Your task to perform on an android device: toggle improve location accuracy Image 0: 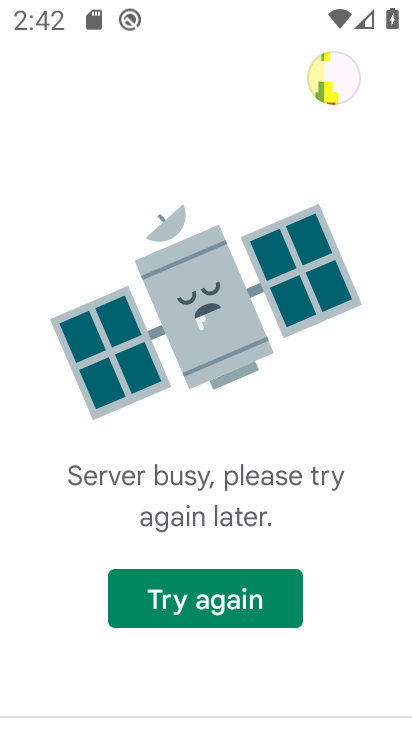
Step 0: press home button
Your task to perform on an android device: toggle improve location accuracy Image 1: 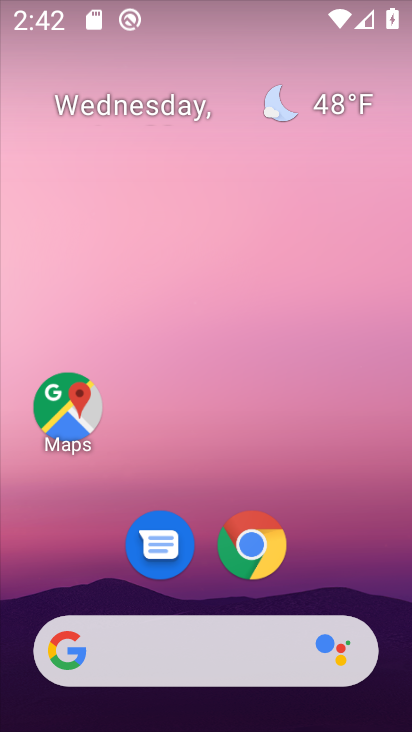
Step 1: drag from (228, 471) to (250, 158)
Your task to perform on an android device: toggle improve location accuracy Image 2: 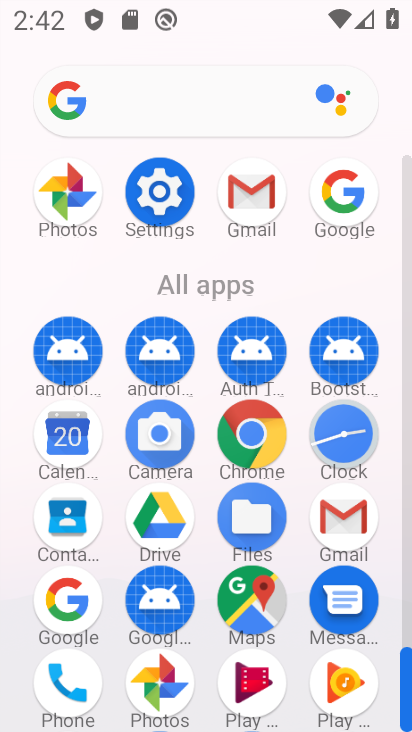
Step 2: click (150, 192)
Your task to perform on an android device: toggle improve location accuracy Image 3: 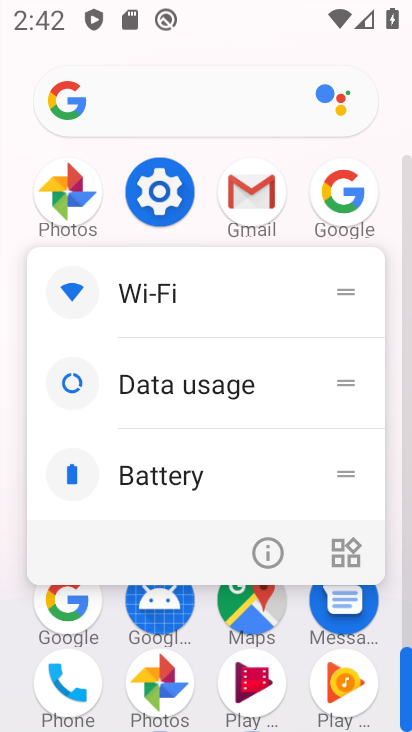
Step 3: click (174, 194)
Your task to perform on an android device: toggle improve location accuracy Image 4: 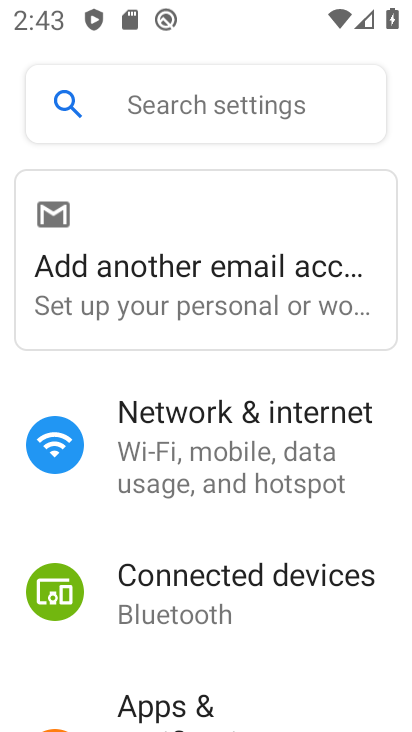
Step 4: drag from (263, 606) to (236, 38)
Your task to perform on an android device: toggle improve location accuracy Image 5: 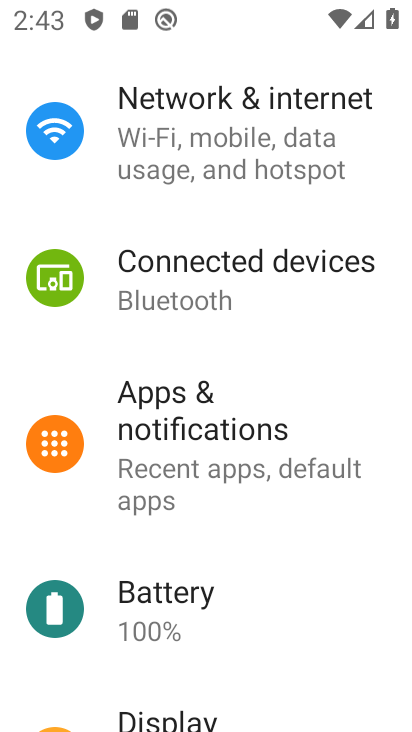
Step 5: drag from (264, 542) to (241, 65)
Your task to perform on an android device: toggle improve location accuracy Image 6: 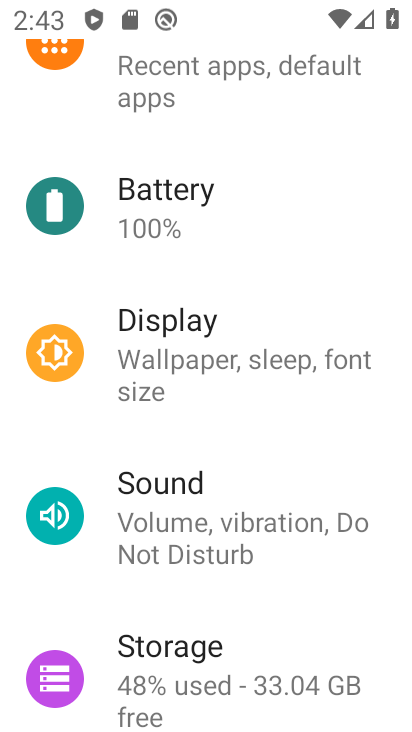
Step 6: drag from (298, 576) to (266, 185)
Your task to perform on an android device: toggle improve location accuracy Image 7: 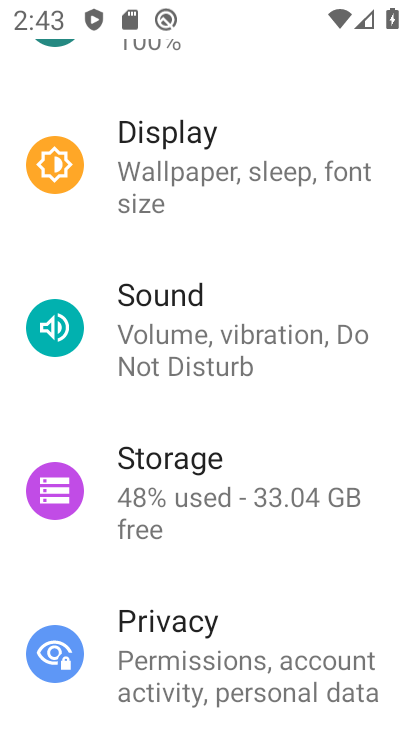
Step 7: drag from (256, 640) to (245, 185)
Your task to perform on an android device: toggle improve location accuracy Image 8: 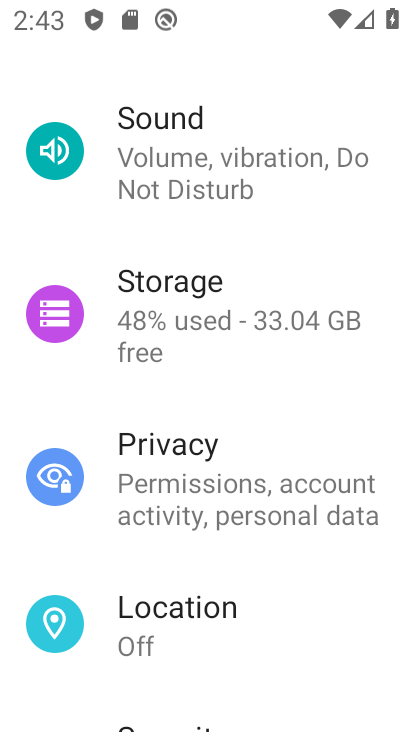
Step 8: drag from (254, 608) to (274, 190)
Your task to perform on an android device: toggle improve location accuracy Image 9: 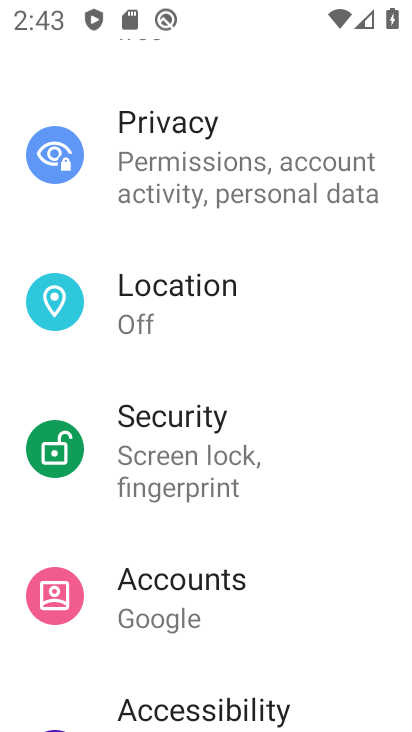
Step 9: drag from (350, 584) to (309, 241)
Your task to perform on an android device: toggle improve location accuracy Image 10: 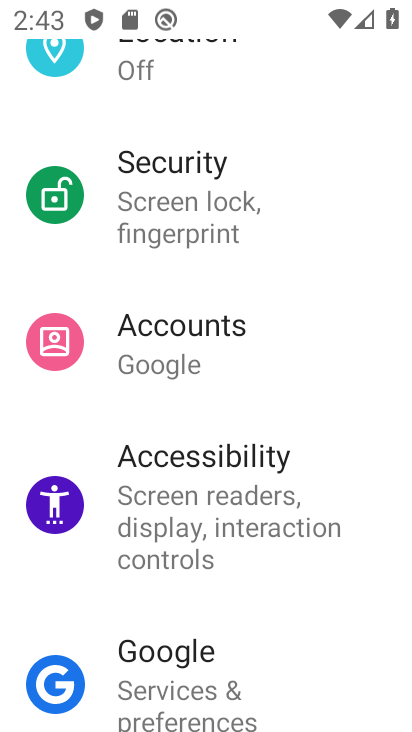
Step 10: drag from (327, 314) to (296, 729)
Your task to perform on an android device: toggle improve location accuracy Image 11: 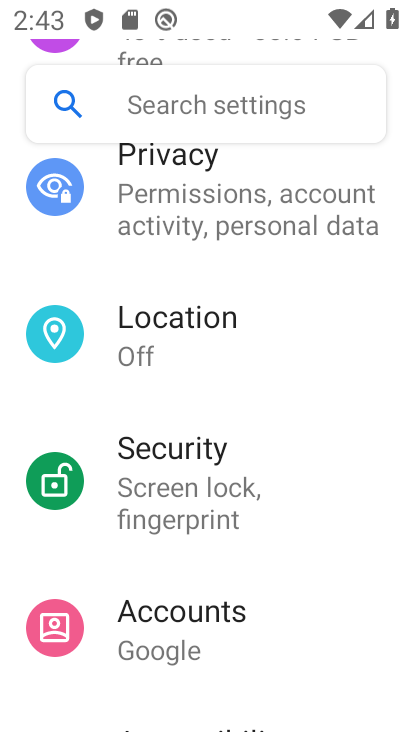
Step 11: drag from (274, 183) to (350, 722)
Your task to perform on an android device: toggle improve location accuracy Image 12: 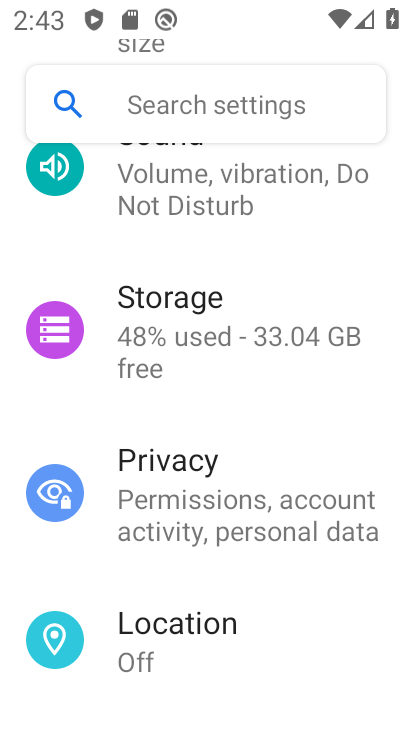
Step 12: drag from (319, 366) to (337, 700)
Your task to perform on an android device: toggle improve location accuracy Image 13: 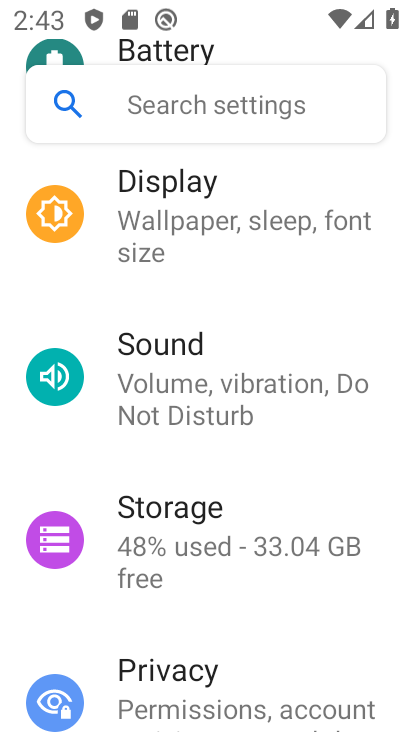
Step 13: drag from (308, 362) to (309, 723)
Your task to perform on an android device: toggle improve location accuracy Image 14: 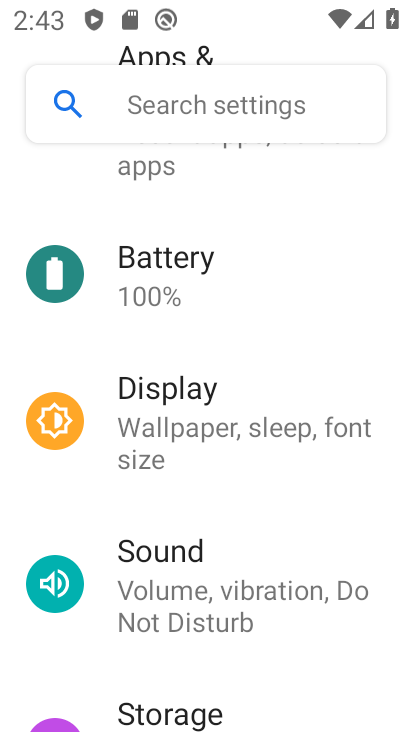
Step 14: drag from (272, 190) to (304, 730)
Your task to perform on an android device: toggle improve location accuracy Image 15: 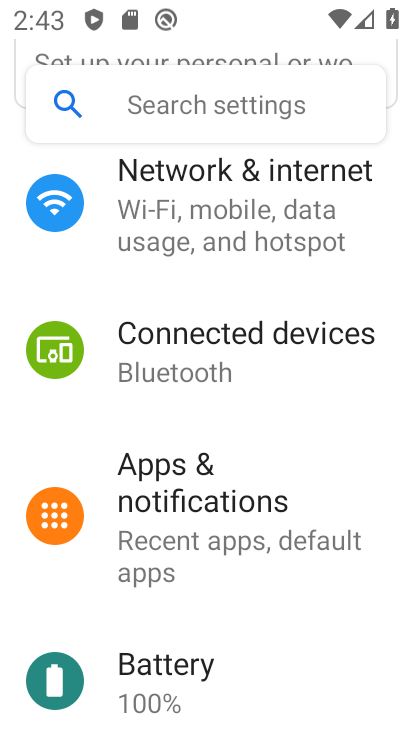
Step 15: drag from (249, 651) to (253, 245)
Your task to perform on an android device: toggle improve location accuracy Image 16: 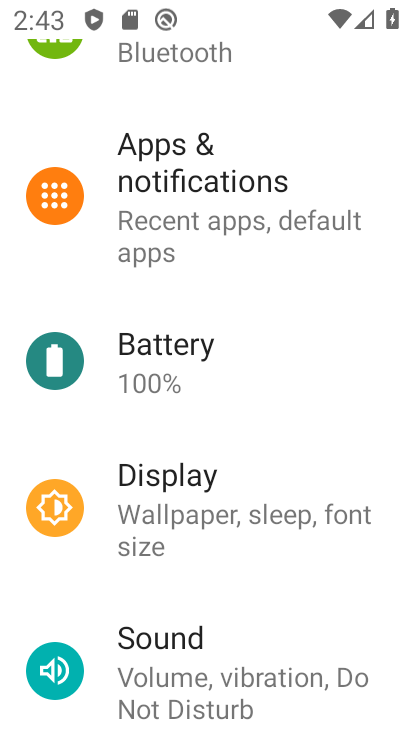
Step 16: drag from (293, 612) to (269, 201)
Your task to perform on an android device: toggle improve location accuracy Image 17: 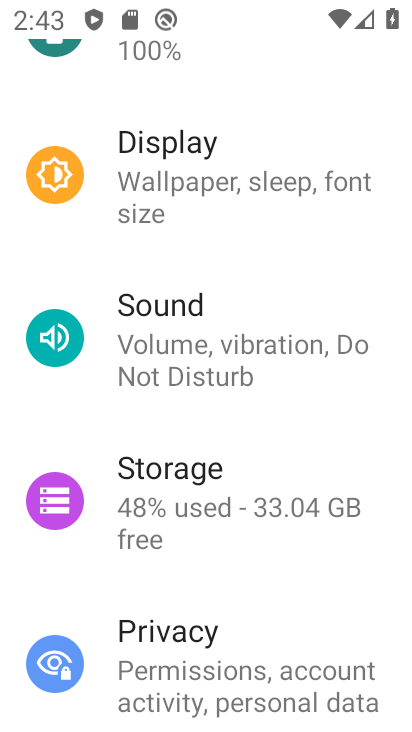
Step 17: drag from (296, 586) to (284, 104)
Your task to perform on an android device: toggle improve location accuracy Image 18: 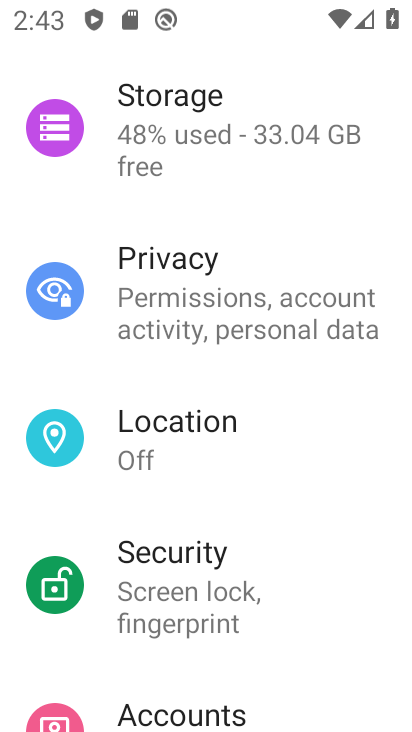
Step 18: click (265, 438)
Your task to perform on an android device: toggle improve location accuracy Image 19: 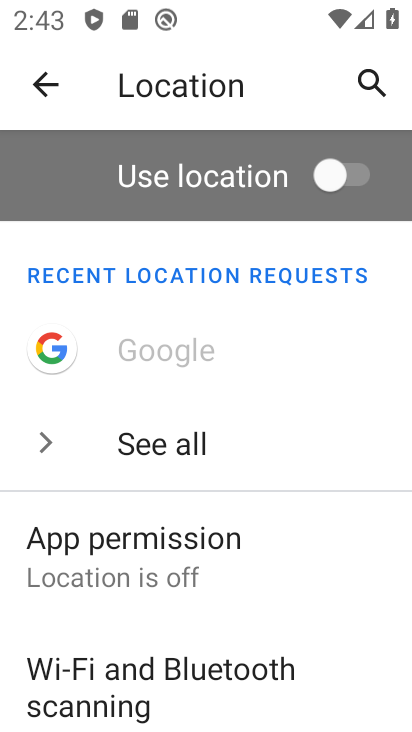
Step 19: drag from (208, 601) to (195, 132)
Your task to perform on an android device: toggle improve location accuracy Image 20: 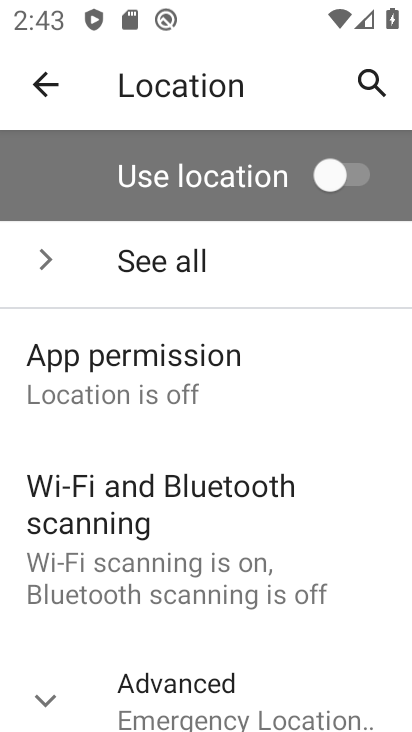
Step 20: click (196, 682)
Your task to perform on an android device: toggle improve location accuracy Image 21: 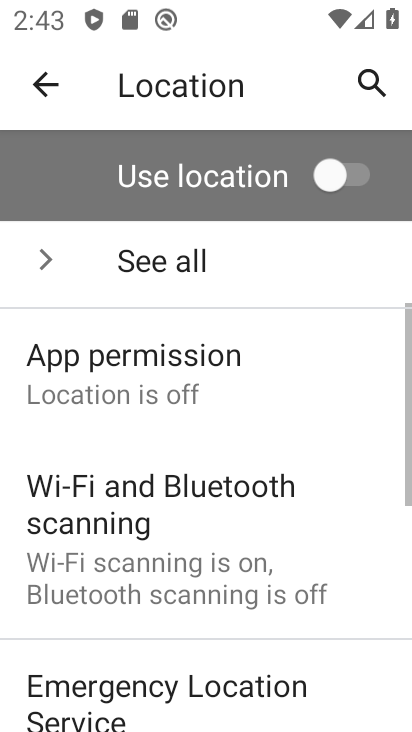
Step 21: drag from (204, 683) to (195, 136)
Your task to perform on an android device: toggle improve location accuracy Image 22: 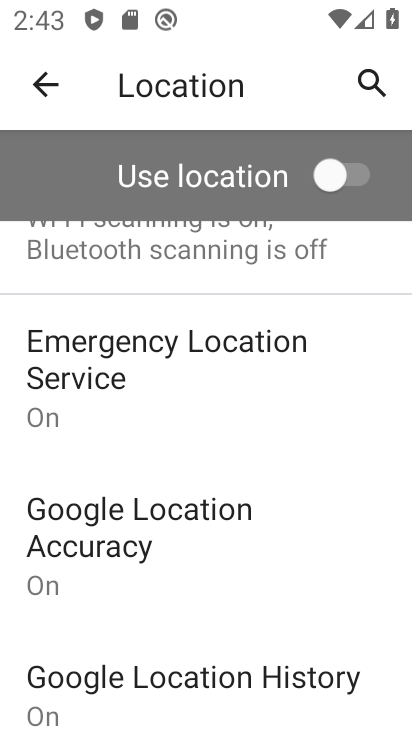
Step 22: click (186, 531)
Your task to perform on an android device: toggle improve location accuracy Image 23: 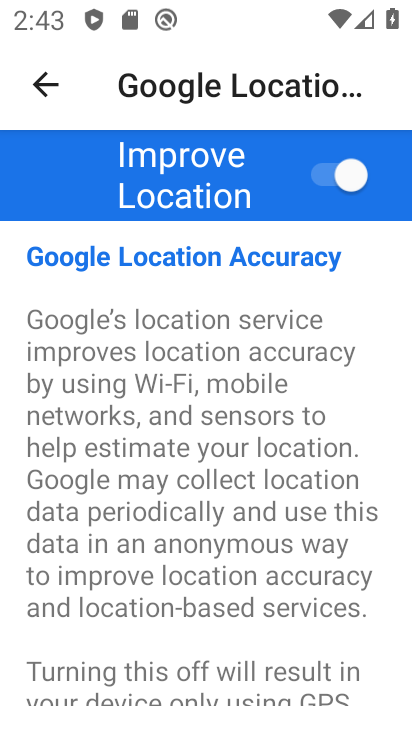
Step 23: click (359, 167)
Your task to perform on an android device: toggle improve location accuracy Image 24: 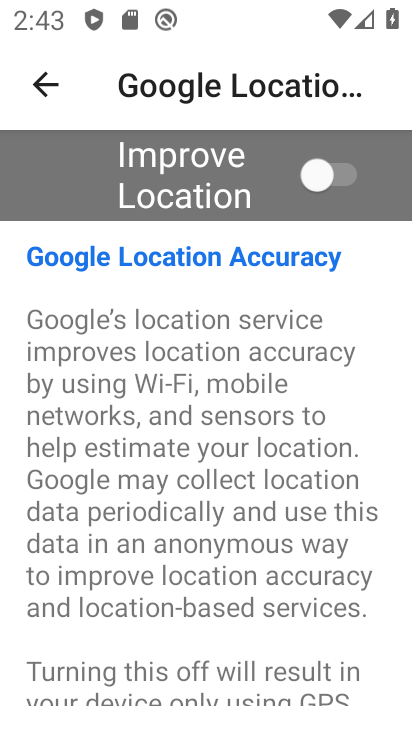
Step 24: task complete